Your task to perform on an android device: snooze an email in the gmail app Image 0: 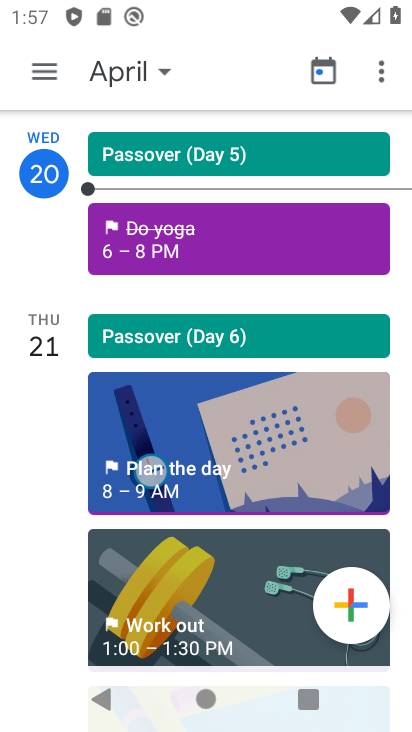
Step 0: press home button
Your task to perform on an android device: snooze an email in the gmail app Image 1: 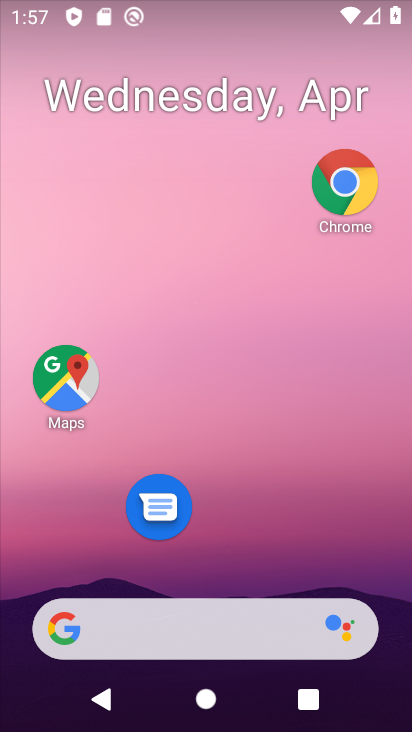
Step 1: drag from (257, 692) to (292, 64)
Your task to perform on an android device: snooze an email in the gmail app Image 2: 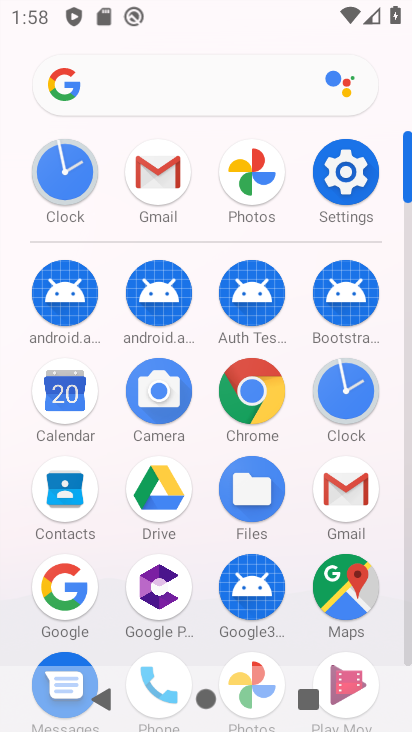
Step 2: click (165, 188)
Your task to perform on an android device: snooze an email in the gmail app Image 3: 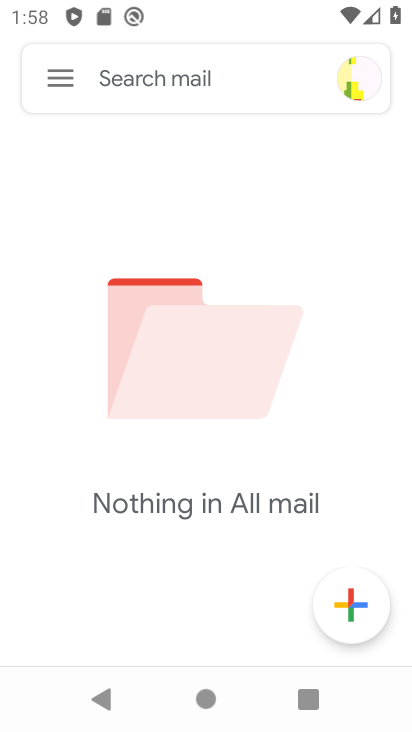
Step 3: task complete